Your task to perform on an android device: Go to Google Image 0: 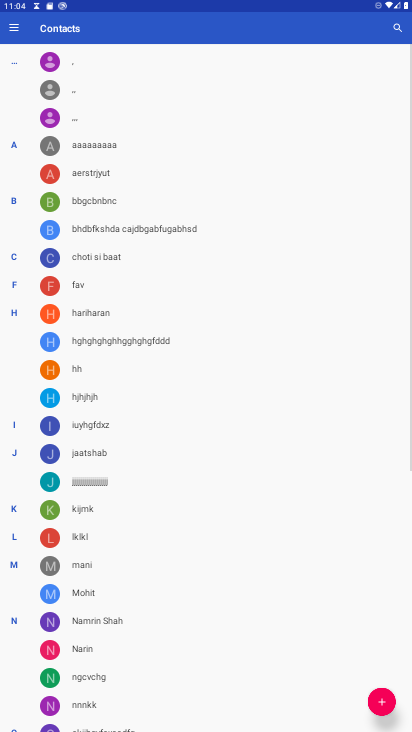
Step 0: press home button
Your task to perform on an android device: Go to Google Image 1: 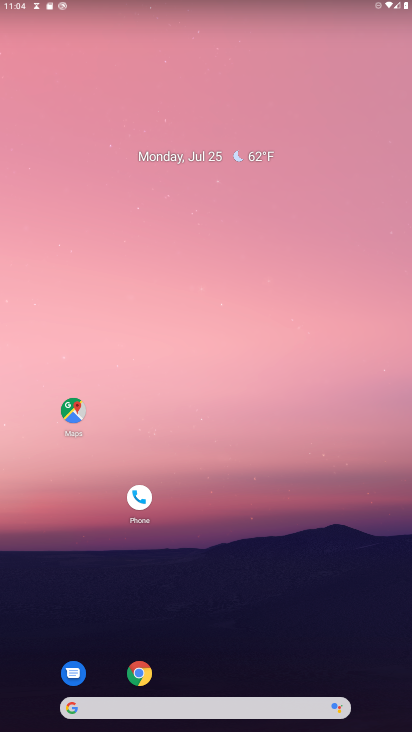
Step 1: drag from (284, 654) to (243, 75)
Your task to perform on an android device: Go to Google Image 2: 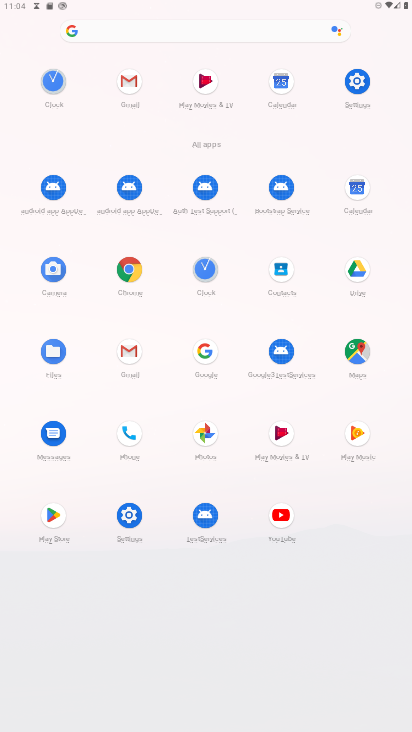
Step 2: click (205, 355)
Your task to perform on an android device: Go to Google Image 3: 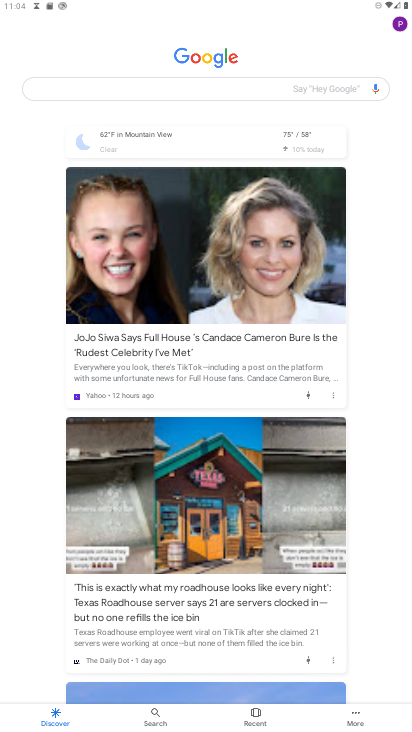
Step 3: task complete